Your task to perform on an android device: turn on sleep mode Image 0: 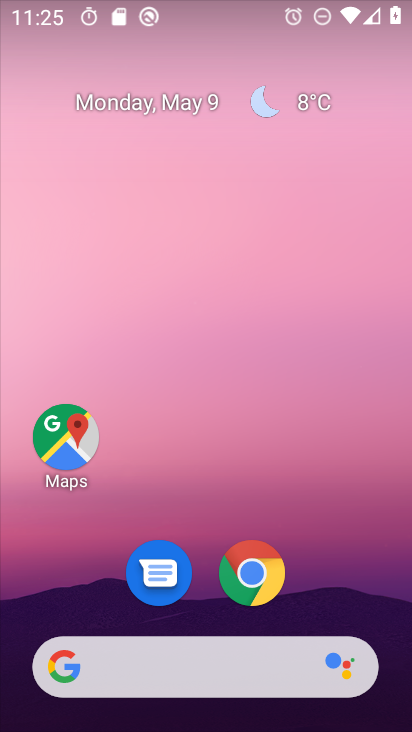
Step 0: drag from (318, 584) to (356, 120)
Your task to perform on an android device: turn on sleep mode Image 1: 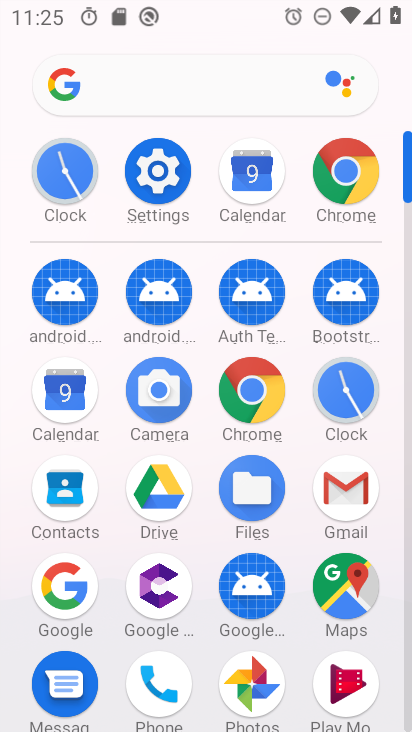
Step 1: click (161, 189)
Your task to perform on an android device: turn on sleep mode Image 2: 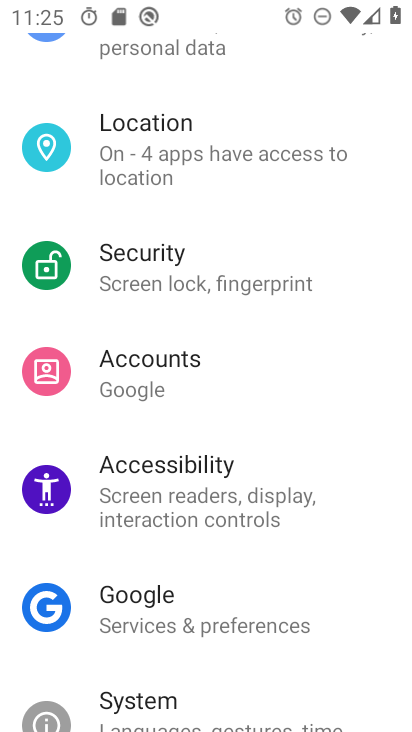
Step 2: drag from (270, 143) to (209, 588)
Your task to perform on an android device: turn on sleep mode Image 3: 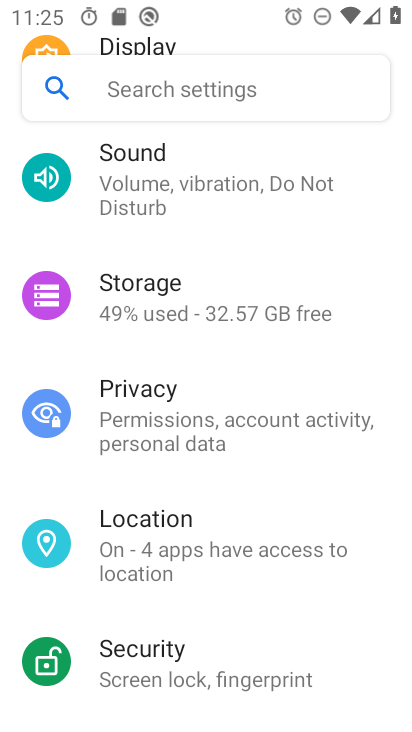
Step 3: drag from (281, 245) to (228, 526)
Your task to perform on an android device: turn on sleep mode Image 4: 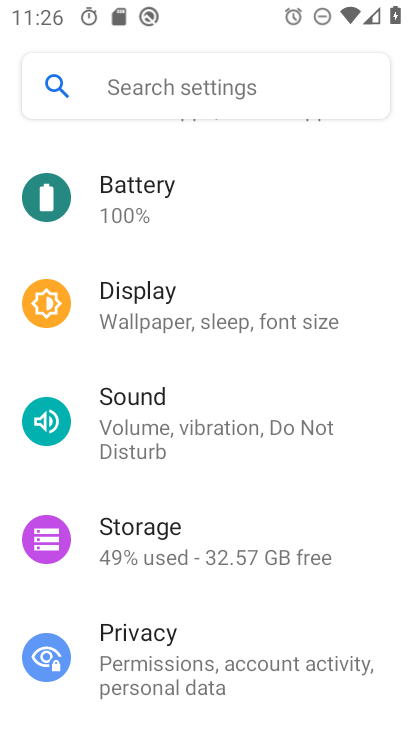
Step 4: click (179, 422)
Your task to perform on an android device: turn on sleep mode Image 5: 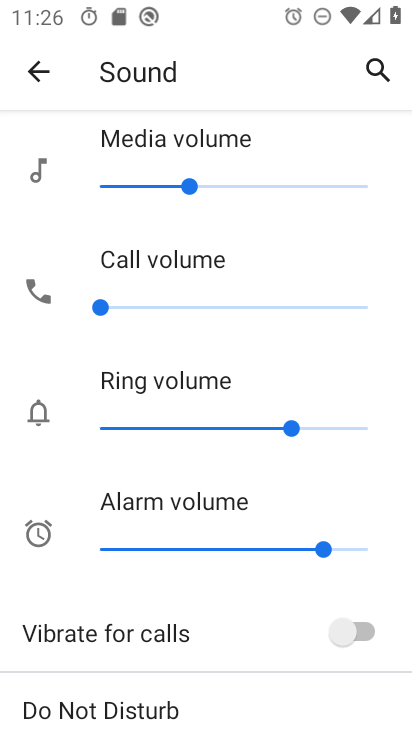
Step 5: click (31, 62)
Your task to perform on an android device: turn on sleep mode Image 6: 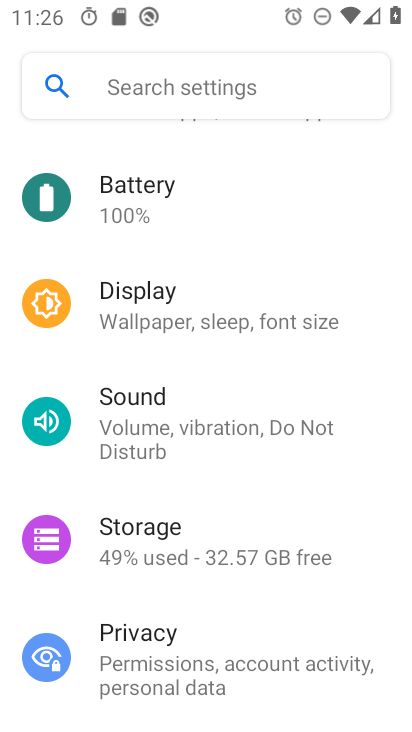
Step 6: drag from (203, 568) to (221, 410)
Your task to perform on an android device: turn on sleep mode Image 7: 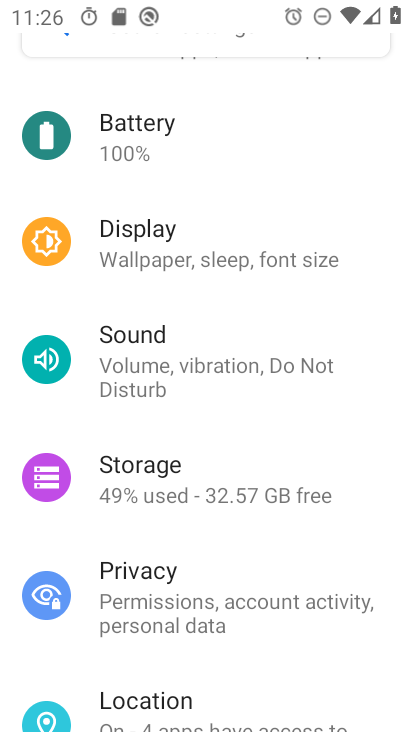
Step 7: click (244, 265)
Your task to perform on an android device: turn on sleep mode Image 8: 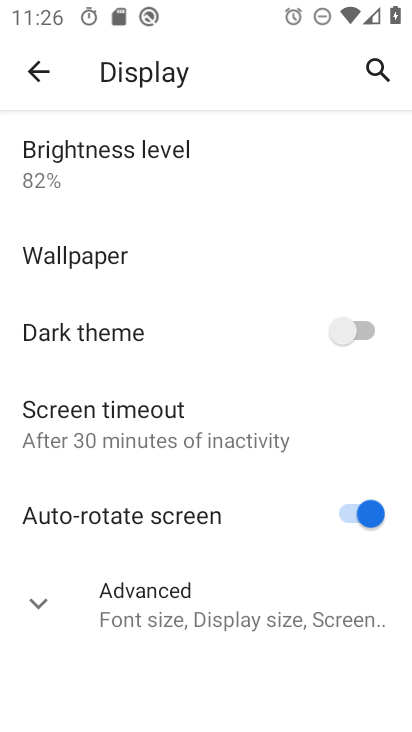
Step 8: click (174, 424)
Your task to perform on an android device: turn on sleep mode Image 9: 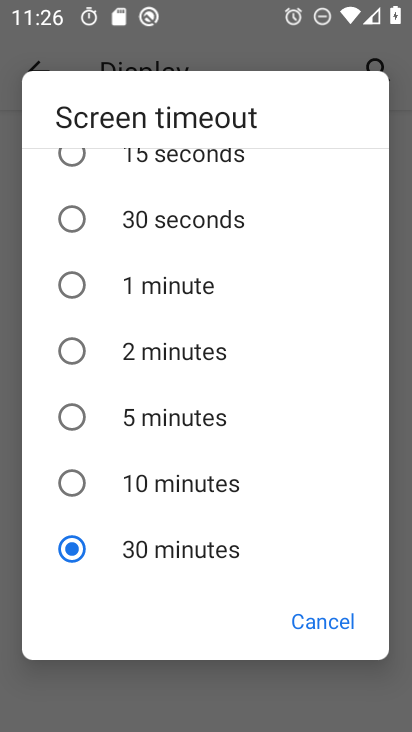
Step 9: task complete